Your task to perform on an android device: turn on airplane mode Image 0: 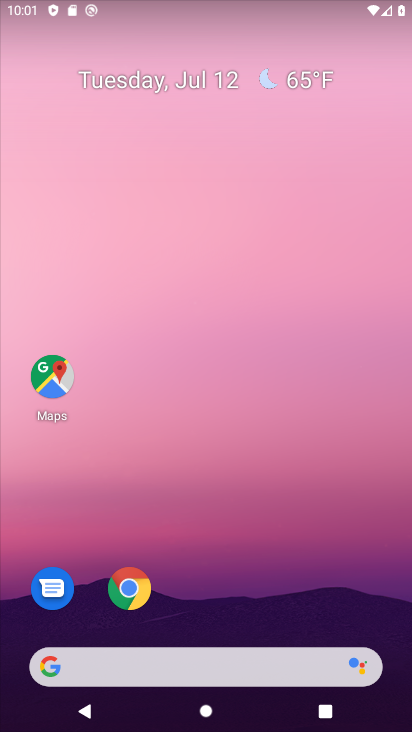
Step 0: drag from (41, 715) to (303, 11)
Your task to perform on an android device: turn on airplane mode Image 1: 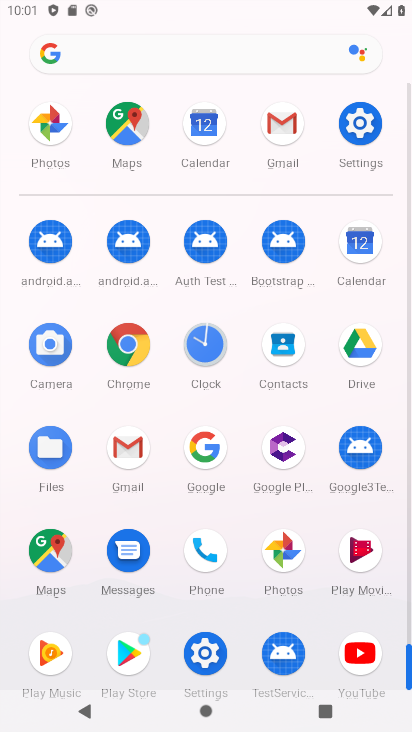
Step 1: click (211, 636)
Your task to perform on an android device: turn on airplane mode Image 2: 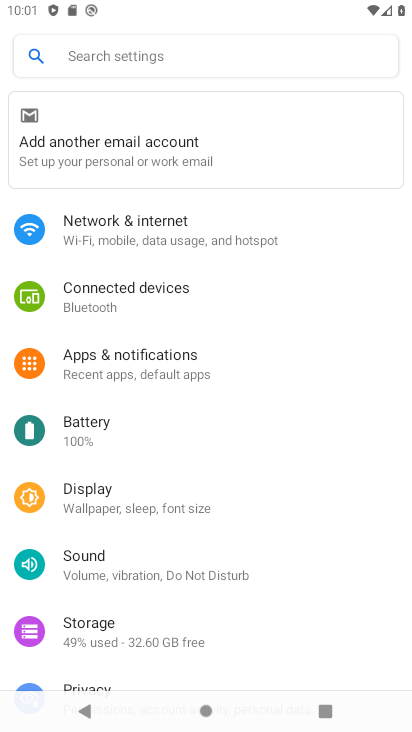
Step 2: click (129, 234)
Your task to perform on an android device: turn on airplane mode Image 3: 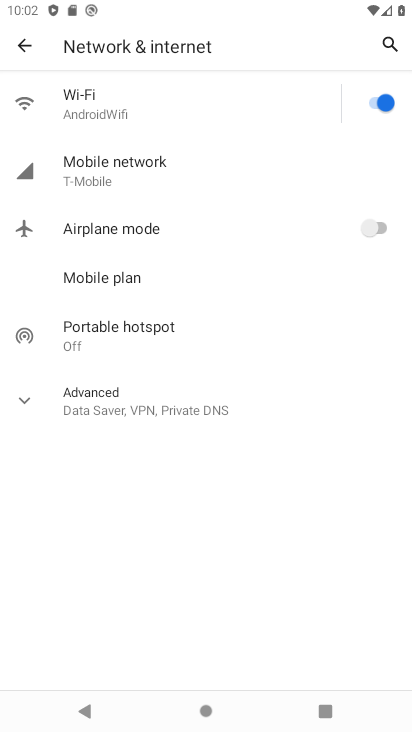
Step 3: click (378, 229)
Your task to perform on an android device: turn on airplane mode Image 4: 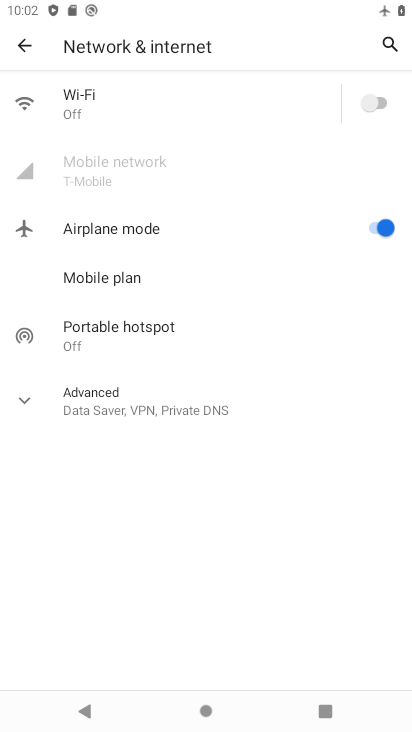
Step 4: task complete